Your task to perform on an android device: Open the stopwatch Image 0: 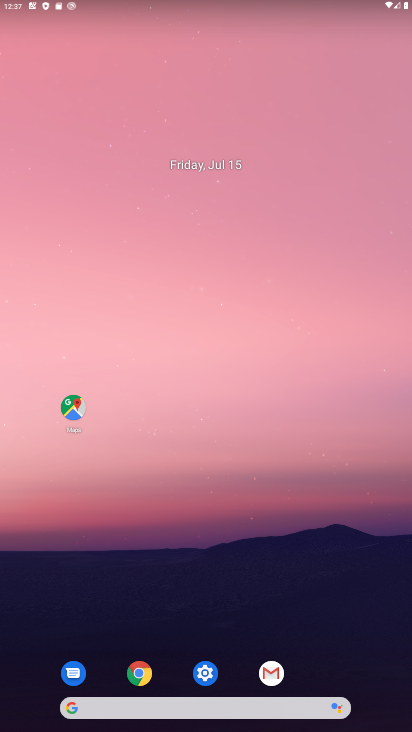
Step 0: press home button
Your task to perform on an android device: Open the stopwatch Image 1: 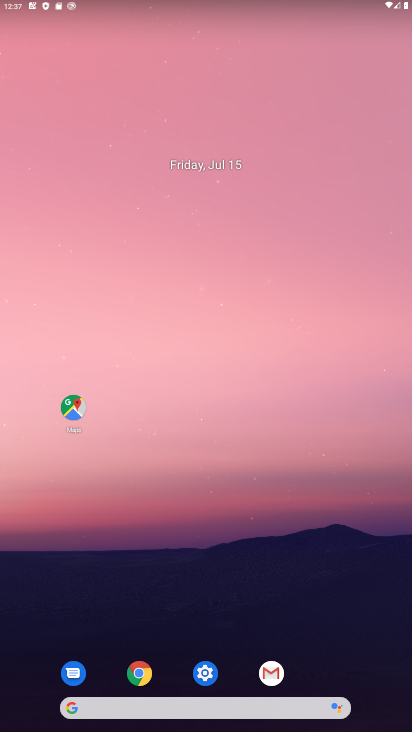
Step 1: drag from (272, 710) to (307, 358)
Your task to perform on an android device: Open the stopwatch Image 2: 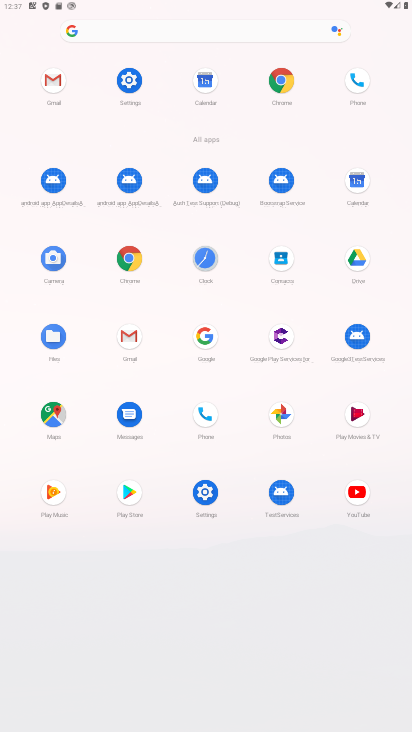
Step 2: click (202, 262)
Your task to perform on an android device: Open the stopwatch Image 3: 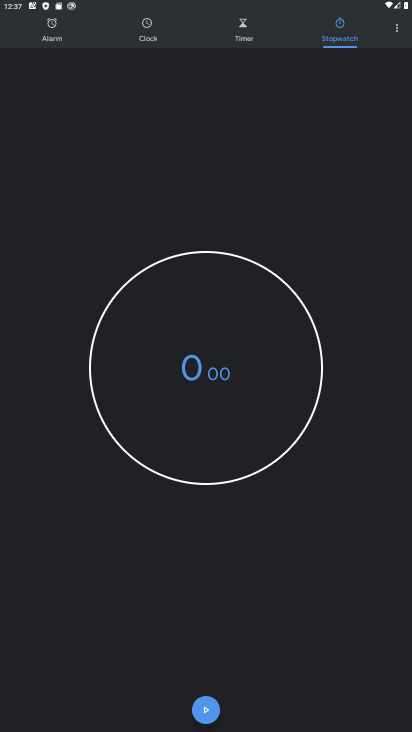
Step 3: click (266, 25)
Your task to perform on an android device: Open the stopwatch Image 4: 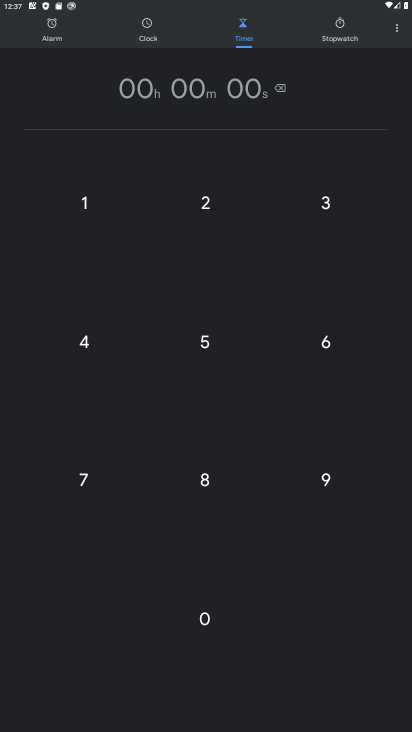
Step 4: click (336, 26)
Your task to perform on an android device: Open the stopwatch Image 5: 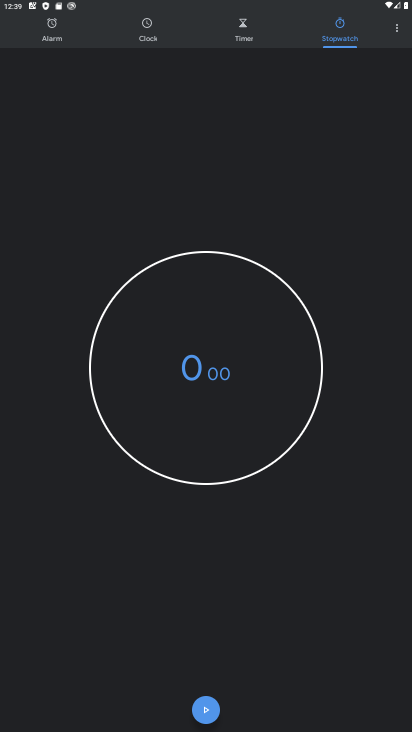
Step 5: task complete